Your task to perform on an android device: Search for pizza restaurants on Maps Image 0: 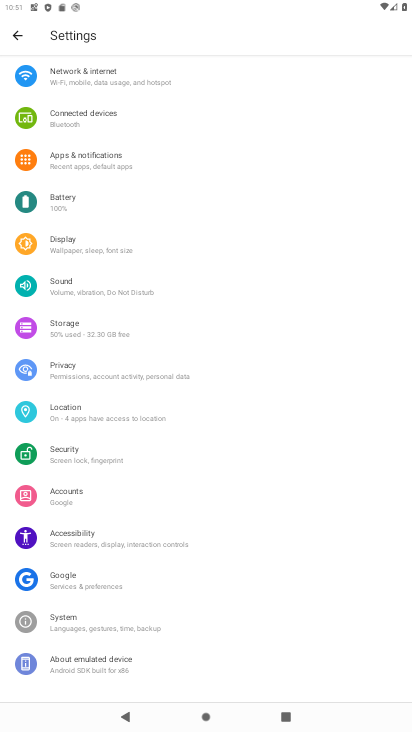
Step 0: press home button
Your task to perform on an android device: Search for pizza restaurants on Maps Image 1: 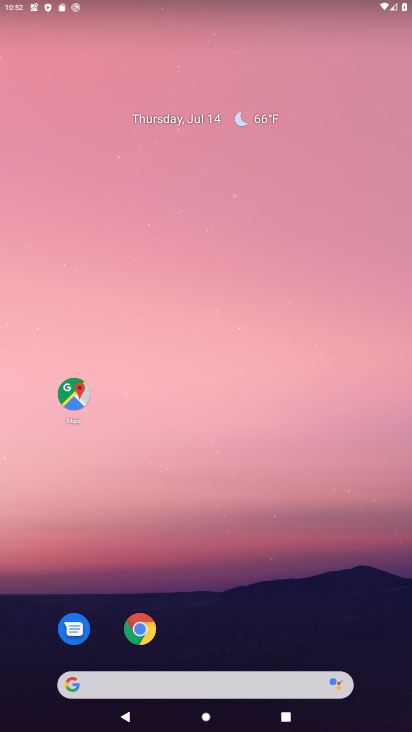
Step 1: click (65, 387)
Your task to perform on an android device: Search for pizza restaurants on Maps Image 2: 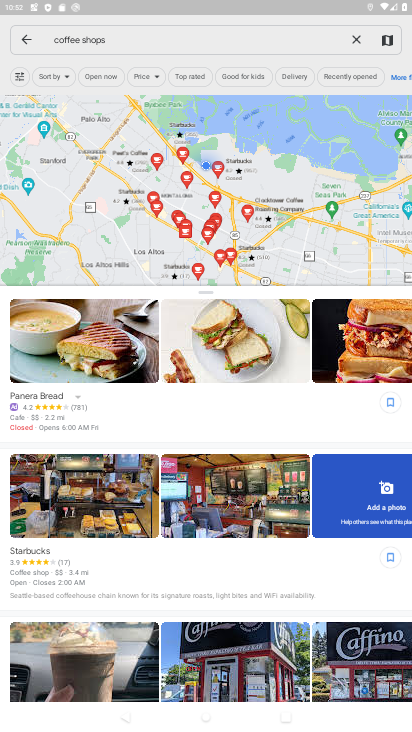
Step 2: click (357, 37)
Your task to perform on an android device: Search for pizza restaurants on Maps Image 3: 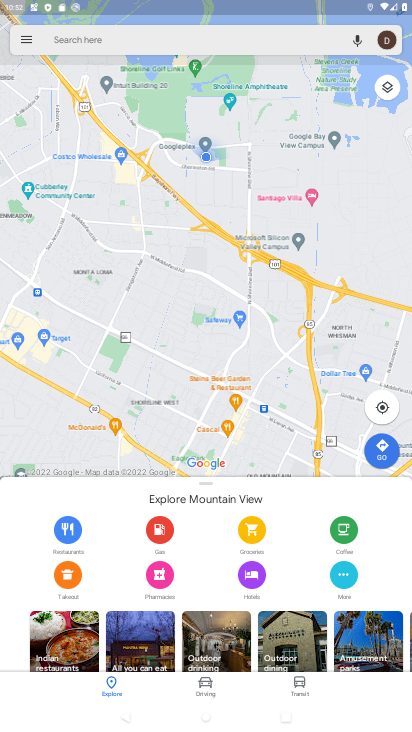
Step 3: type "pizza restaurants"
Your task to perform on an android device: Search for pizza restaurants on Maps Image 4: 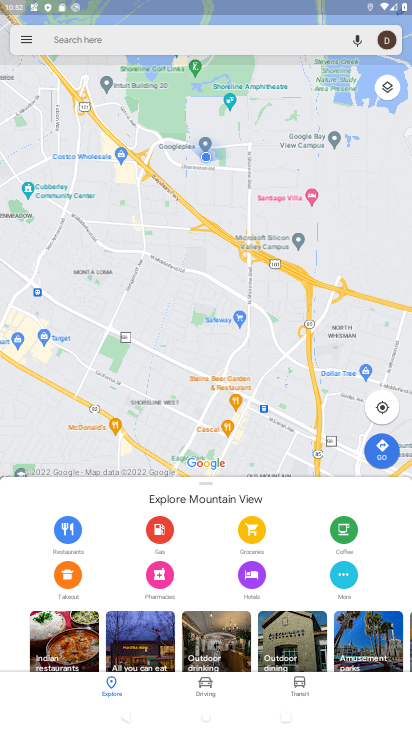
Step 4: click (99, 40)
Your task to perform on an android device: Search for pizza restaurants on Maps Image 5: 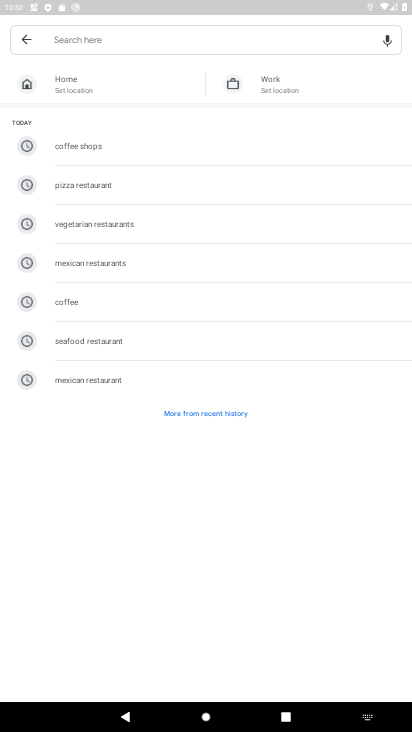
Step 5: click (99, 40)
Your task to perform on an android device: Search for pizza restaurants on Maps Image 6: 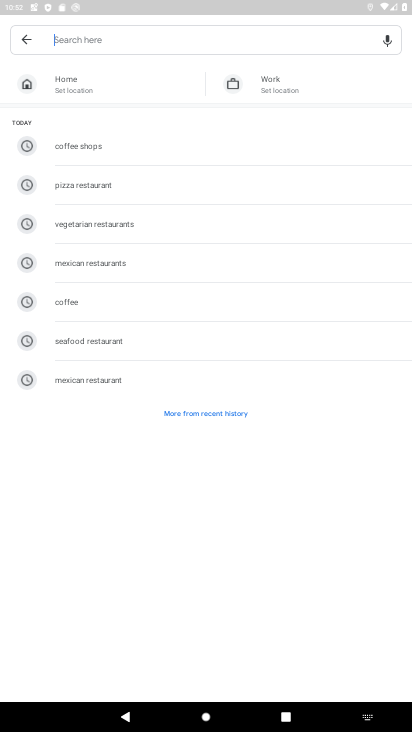
Step 6: click (76, 184)
Your task to perform on an android device: Search for pizza restaurants on Maps Image 7: 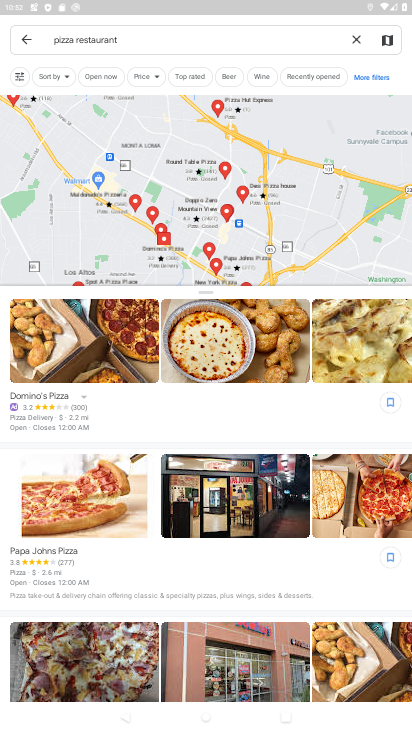
Step 7: task complete